Your task to perform on an android device: find snoozed emails in the gmail app Image 0: 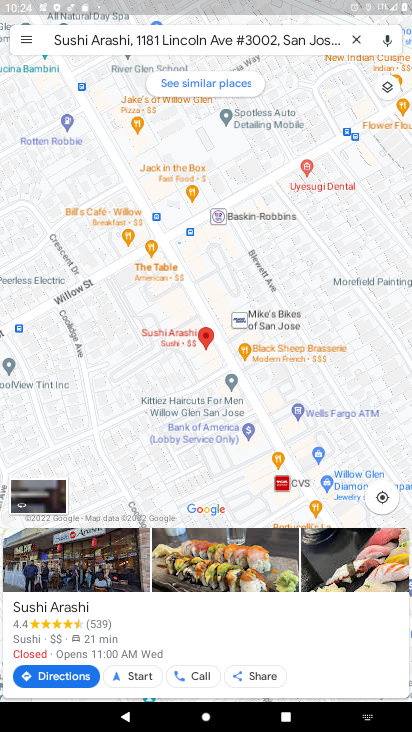
Step 0: press home button
Your task to perform on an android device: find snoozed emails in the gmail app Image 1: 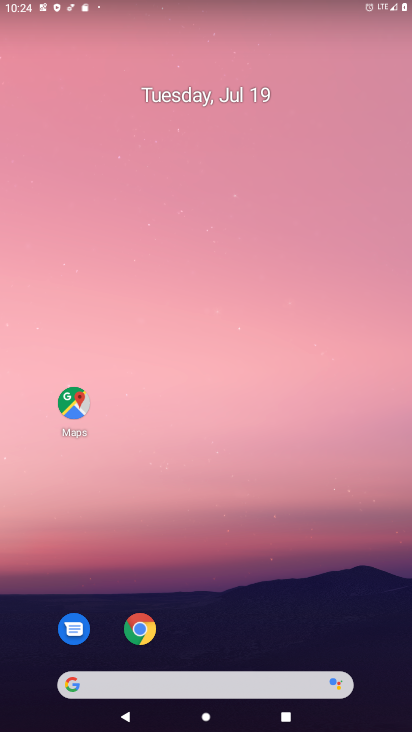
Step 1: drag from (194, 394) to (215, 56)
Your task to perform on an android device: find snoozed emails in the gmail app Image 2: 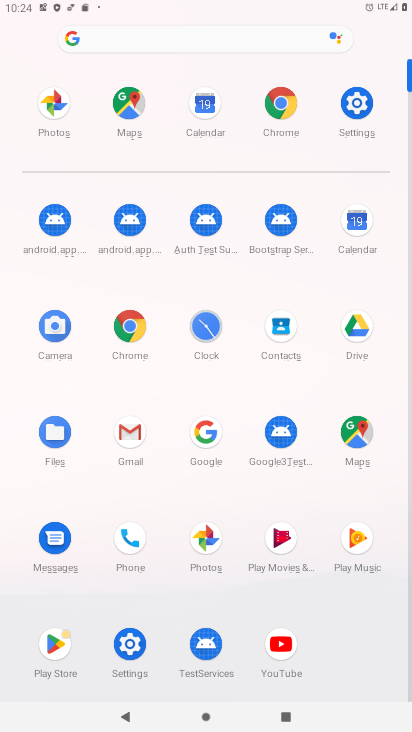
Step 2: click (131, 446)
Your task to perform on an android device: find snoozed emails in the gmail app Image 3: 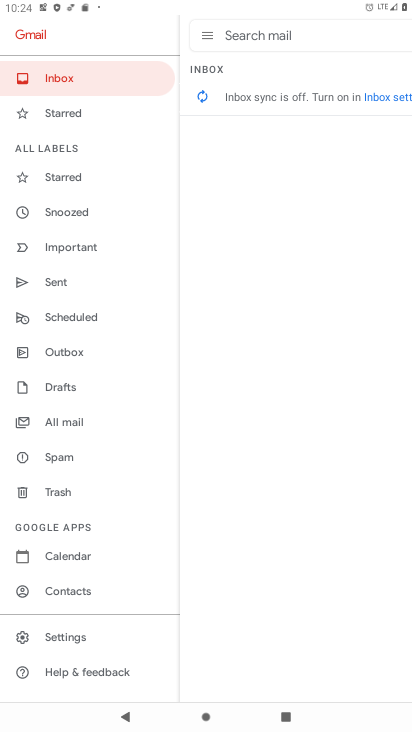
Step 3: click (89, 219)
Your task to perform on an android device: find snoozed emails in the gmail app Image 4: 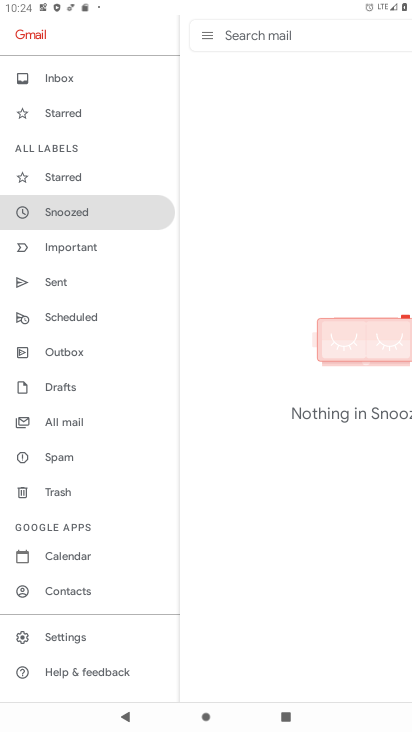
Step 4: task complete